Your task to perform on an android device: toggle translation in the chrome app Image 0: 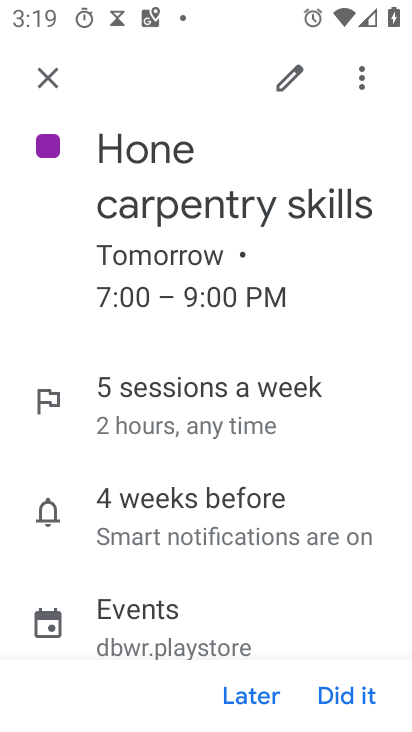
Step 0: press back button
Your task to perform on an android device: toggle translation in the chrome app Image 1: 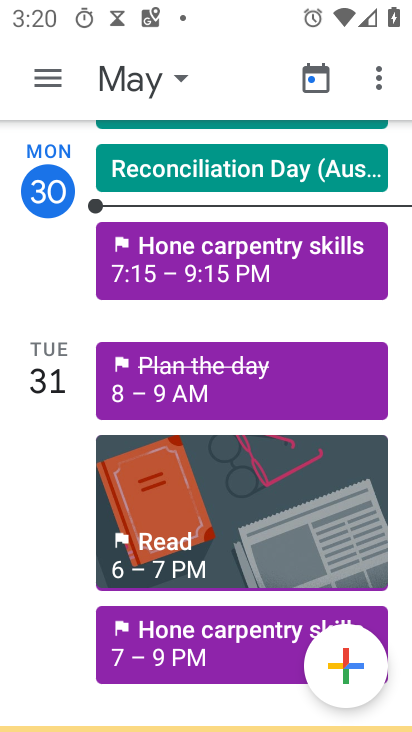
Step 1: press back button
Your task to perform on an android device: toggle translation in the chrome app Image 2: 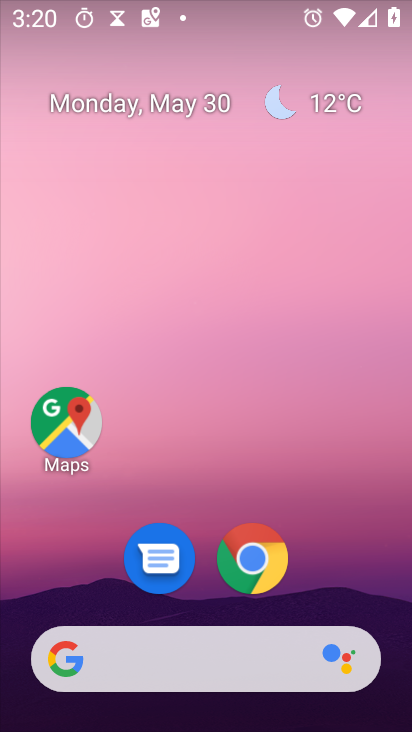
Step 2: click (252, 555)
Your task to perform on an android device: toggle translation in the chrome app Image 3: 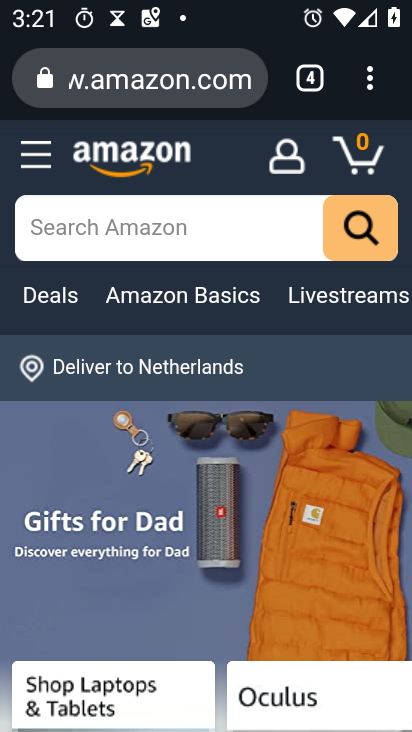
Step 3: drag from (365, 80) to (141, 609)
Your task to perform on an android device: toggle translation in the chrome app Image 4: 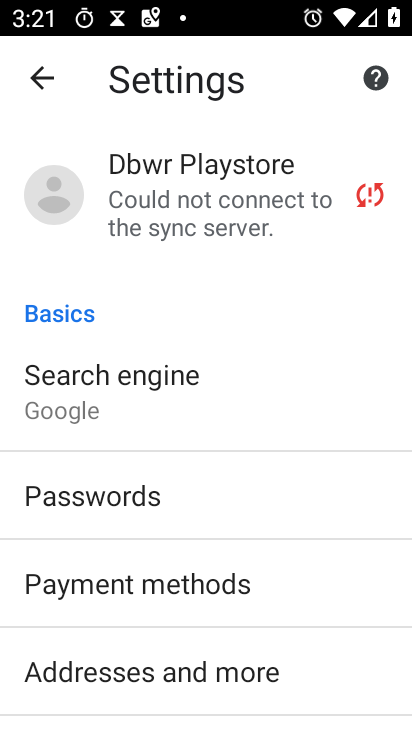
Step 4: drag from (156, 638) to (251, 135)
Your task to perform on an android device: toggle translation in the chrome app Image 5: 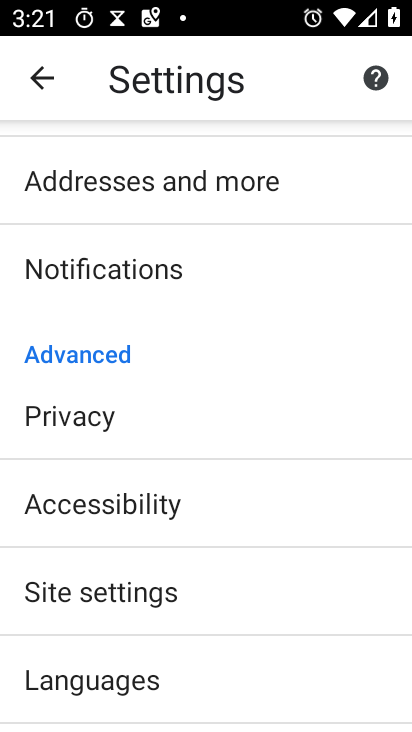
Step 5: click (126, 697)
Your task to perform on an android device: toggle translation in the chrome app Image 6: 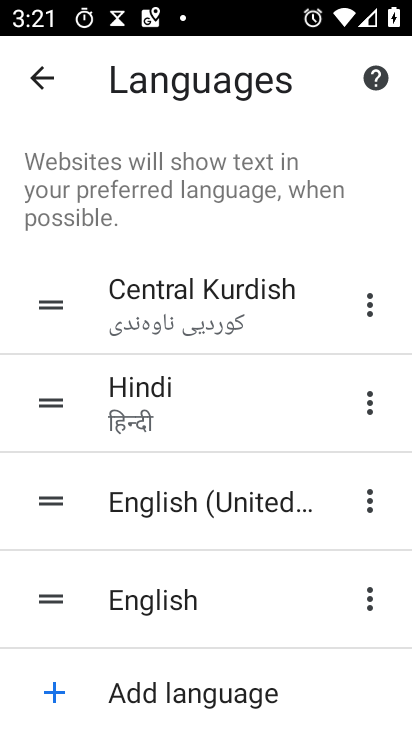
Step 6: drag from (181, 537) to (278, 101)
Your task to perform on an android device: toggle translation in the chrome app Image 7: 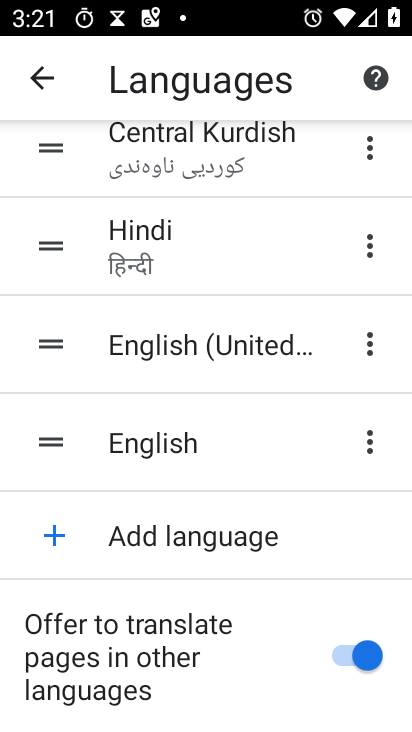
Step 7: click (358, 654)
Your task to perform on an android device: toggle translation in the chrome app Image 8: 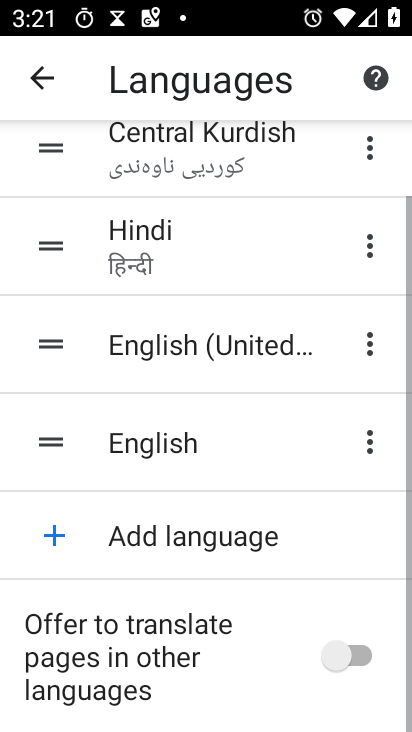
Step 8: task complete